Your task to perform on an android device: Go to settings Image 0: 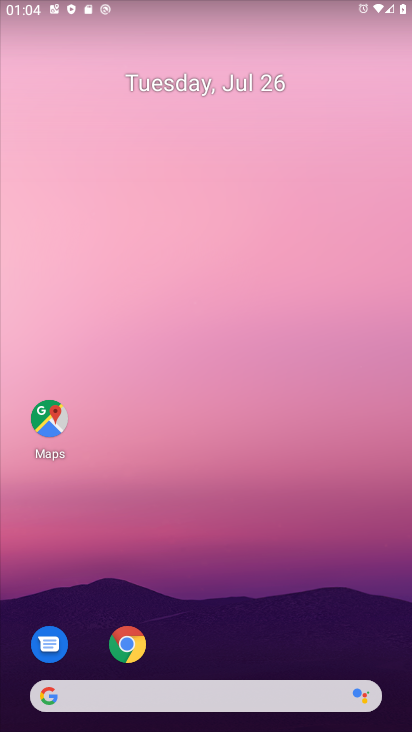
Step 0: drag from (263, 645) to (165, 87)
Your task to perform on an android device: Go to settings Image 1: 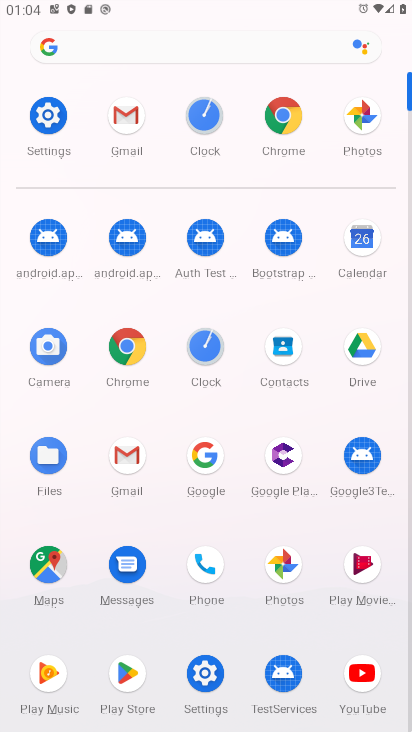
Step 1: click (41, 106)
Your task to perform on an android device: Go to settings Image 2: 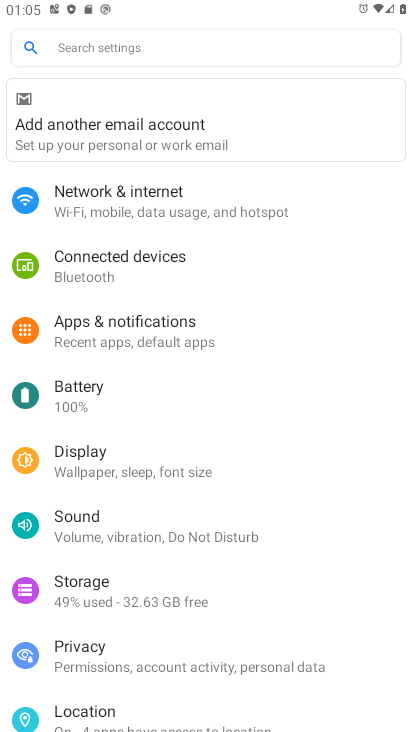
Step 2: task complete